Your task to perform on an android device: open chrome privacy settings Image 0: 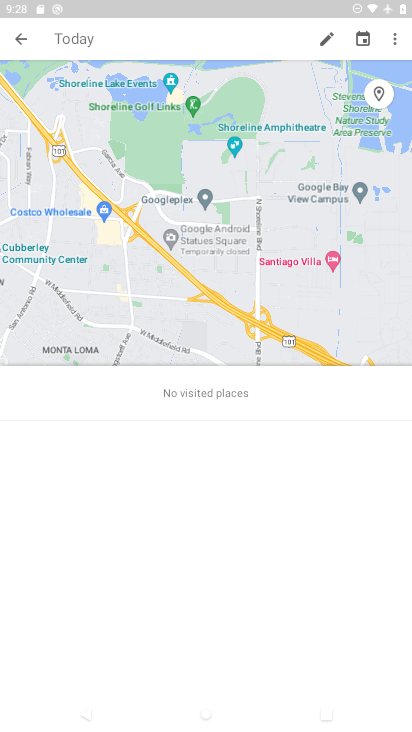
Step 0: press home button
Your task to perform on an android device: open chrome privacy settings Image 1: 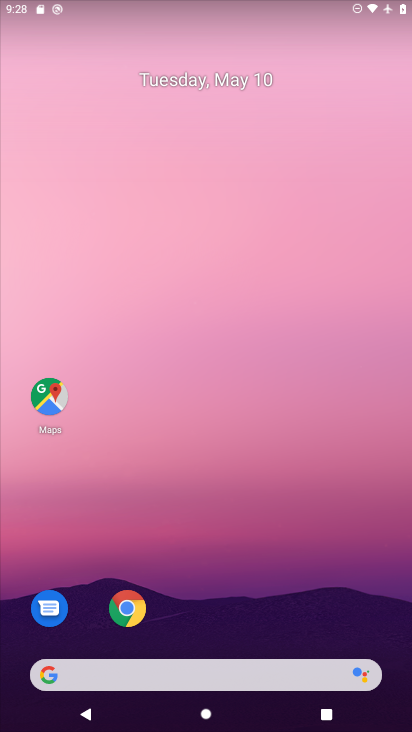
Step 1: drag from (258, 552) to (279, 300)
Your task to perform on an android device: open chrome privacy settings Image 2: 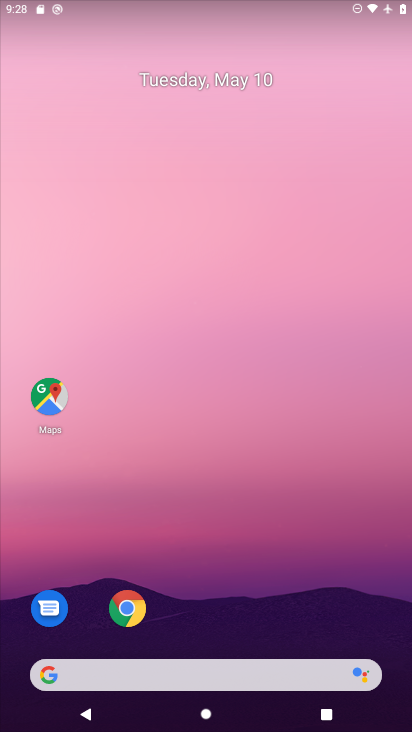
Step 2: drag from (261, 472) to (290, 308)
Your task to perform on an android device: open chrome privacy settings Image 3: 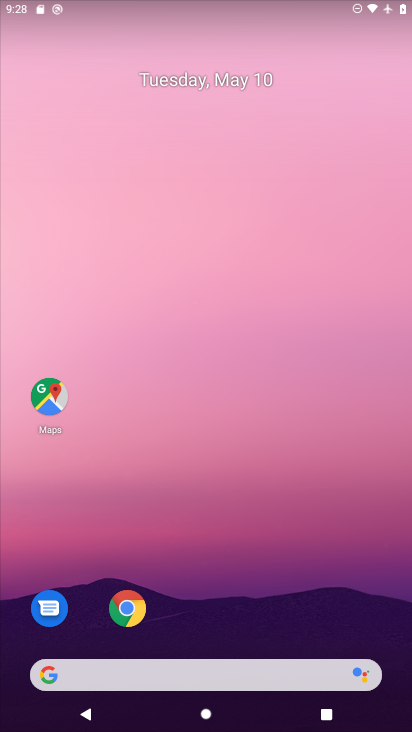
Step 3: drag from (189, 628) to (241, 278)
Your task to perform on an android device: open chrome privacy settings Image 4: 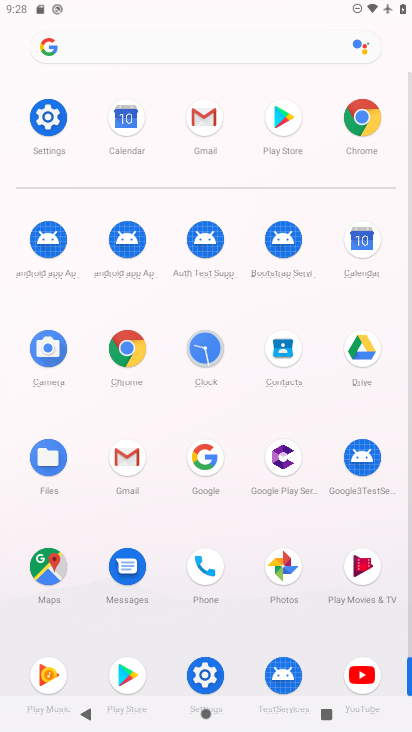
Step 4: click (120, 342)
Your task to perform on an android device: open chrome privacy settings Image 5: 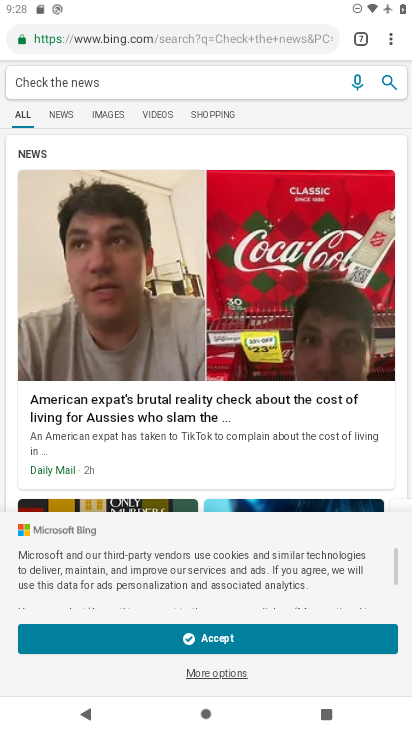
Step 5: click (383, 36)
Your task to perform on an android device: open chrome privacy settings Image 6: 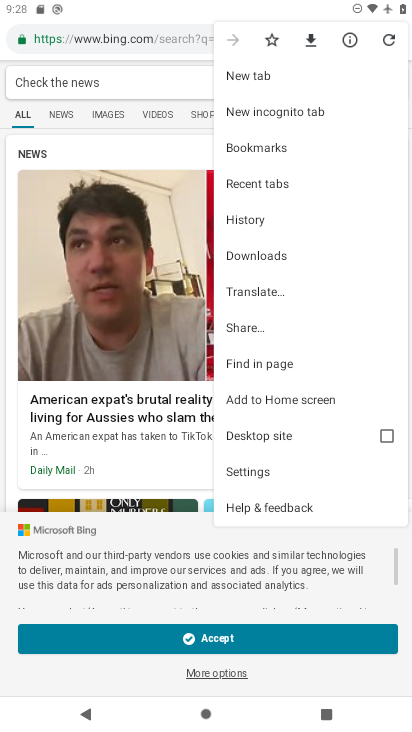
Step 6: click (261, 465)
Your task to perform on an android device: open chrome privacy settings Image 7: 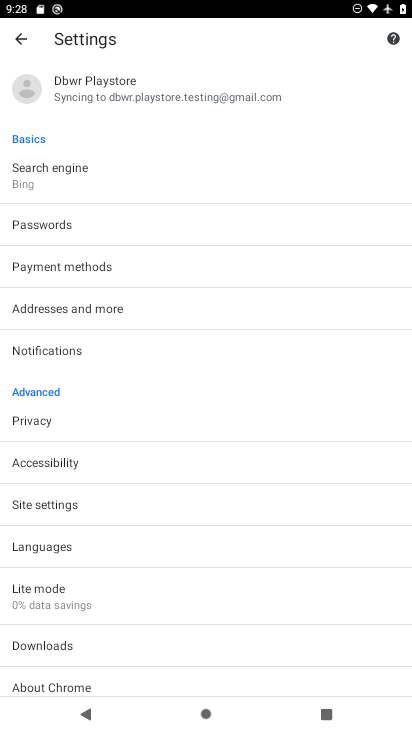
Step 7: click (54, 419)
Your task to perform on an android device: open chrome privacy settings Image 8: 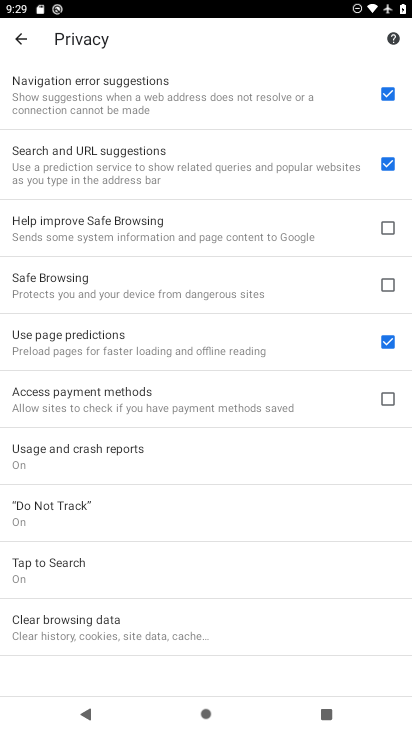
Step 8: task complete